Your task to perform on an android device: Search for "razer huntsman" on target, select the first entry, add it to the cart, then select checkout. Image 0: 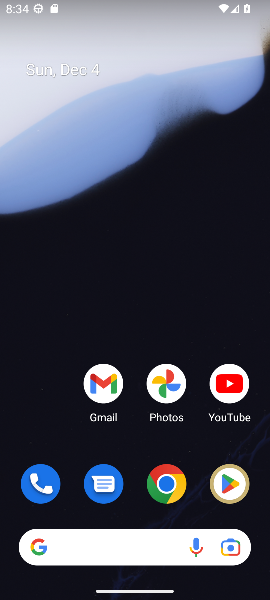
Step 0: click (162, 487)
Your task to perform on an android device: Search for "razer huntsman" on target, select the first entry, add it to the cart, then select checkout. Image 1: 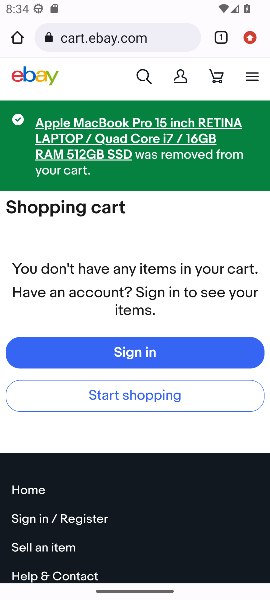
Step 1: click (93, 41)
Your task to perform on an android device: Search for "razer huntsman" on target, select the first entry, add it to the cart, then select checkout. Image 2: 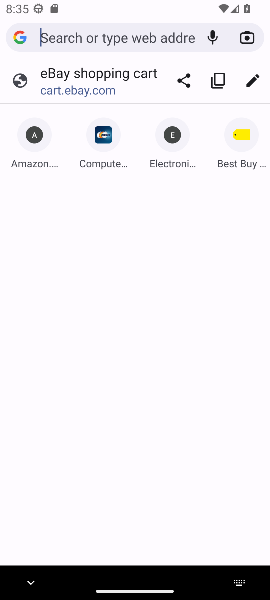
Step 2: type "target.com"
Your task to perform on an android device: Search for "razer huntsman" on target, select the first entry, add it to the cart, then select checkout. Image 3: 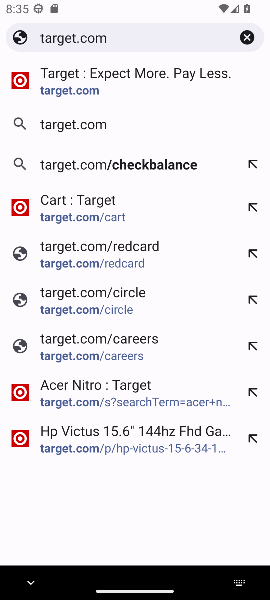
Step 3: click (78, 98)
Your task to perform on an android device: Search for "razer huntsman" on target, select the first entry, add it to the cart, then select checkout. Image 4: 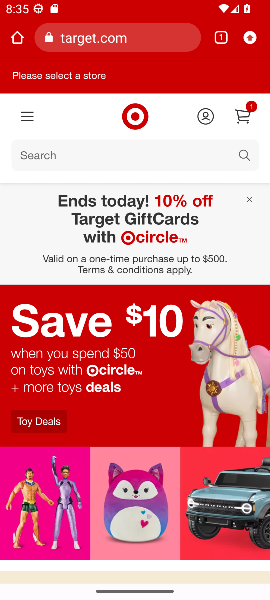
Step 4: click (37, 149)
Your task to perform on an android device: Search for "razer huntsman" on target, select the first entry, add it to the cart, then select checkout. Image 5: 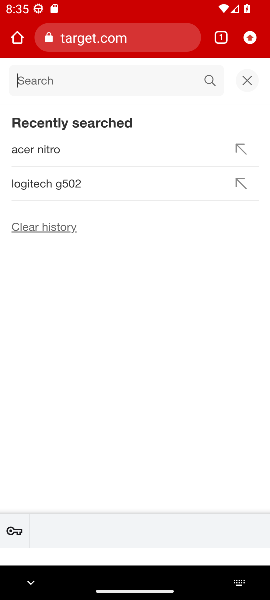
Step 5: type "razer huntsman"
Your task to perform on an android device: Search for "razer huntsman" on target, select the first entry, add it to the cart, then select checkout. Image 6: 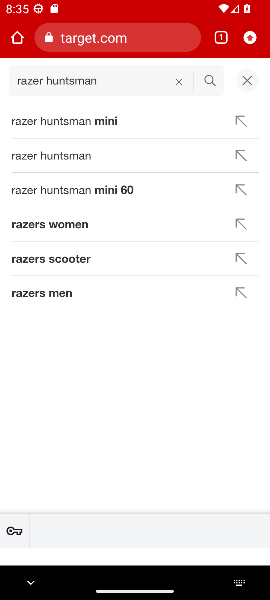
Step 6: click (35, 156)
Your task to perform on an android device: Search for "razer huntsman" on target, select the first entry, add it to the cart, then select checkout. Image 7: 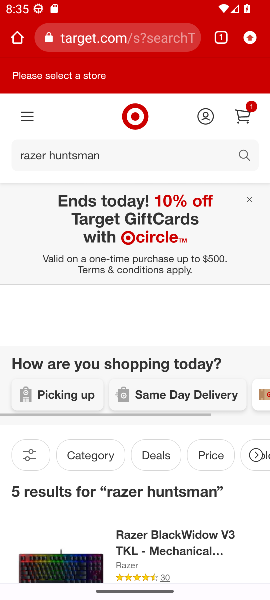
Step 7: click (145, 335)
Your task to perform on an android device: Search for "razer huntsman" on target, select the first entry, add it to the cart, then select checkout. Image 8: 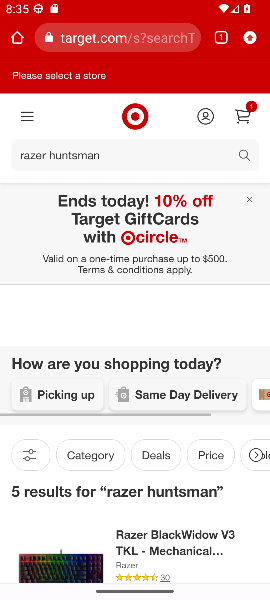
Step 8: task complete